Your task to perform on an android device: change the upload size in google photos Image 0: 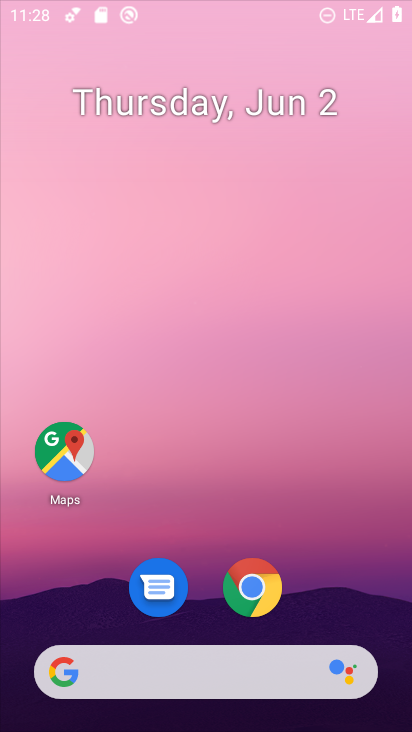
Step 0: drag from (380, 596) to (304, 236)
Your task to perform on an android device: change the upload size in google photos Image 1: 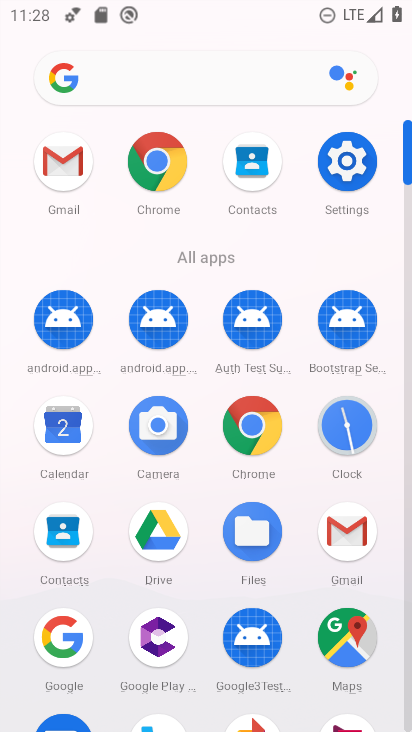
Step 1: click (407, 720)
Your task to perform on an android device: change the upload size in google photos Image 2: 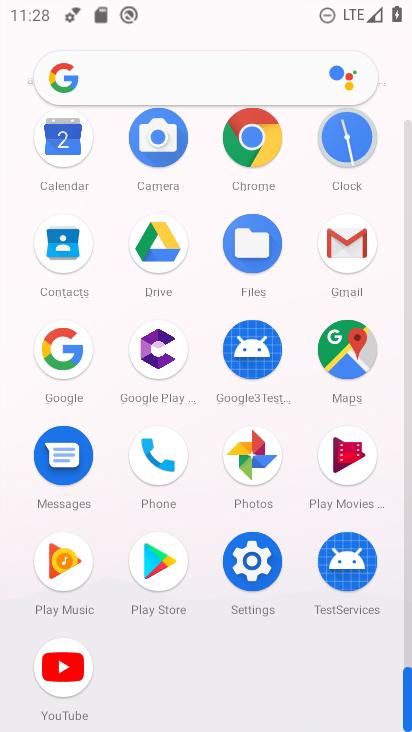
Step 2: click (254, 464)
Your task to perform on an android device: change the upload size in google photos Image 3: 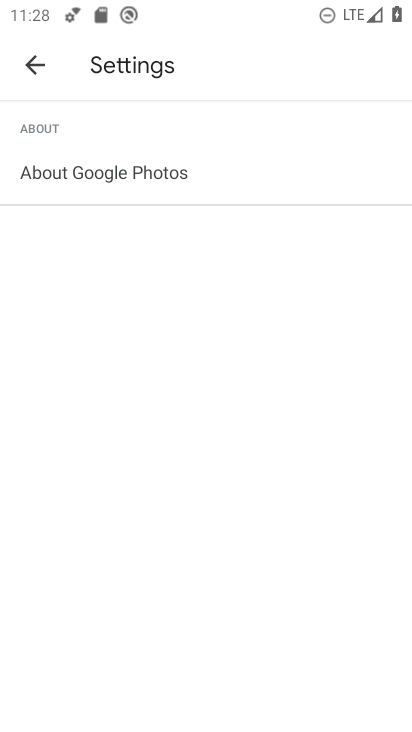
Step 3: click (30, 66)
Your task to perform on an android device: change the upload size in google photos Image 4: 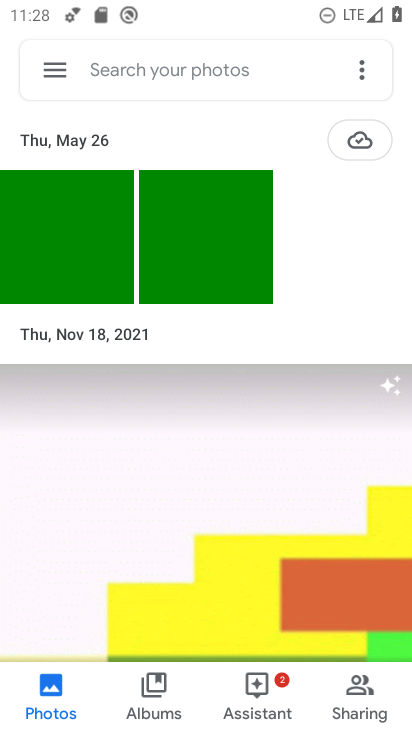
Step 4: click (56, 67)
Your task to perform on an android device: change the upload size in google photos Image 5: 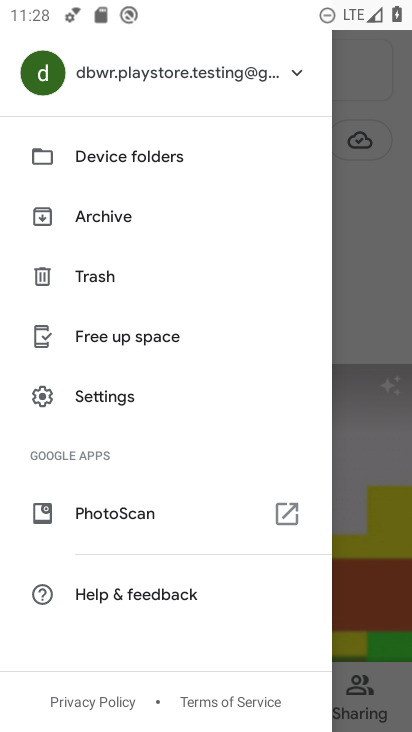
Step 5: click (143, 403)
Your task to perform on an android device: change the upload size in google photos Image 6: 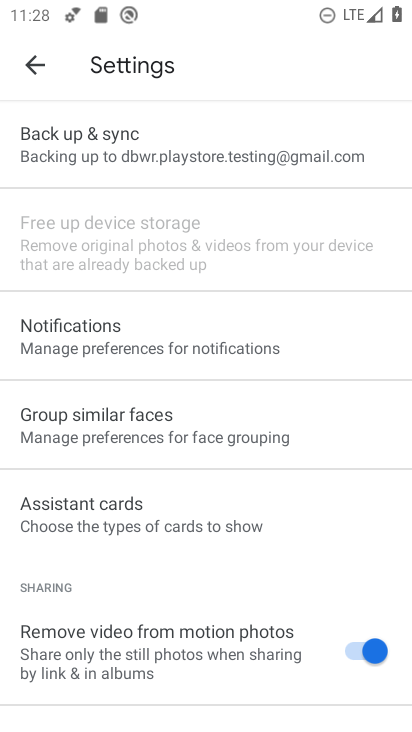
Step 6: click (174, 131)
Your task to perform on an android device: change the upload size in google photos Image 7: 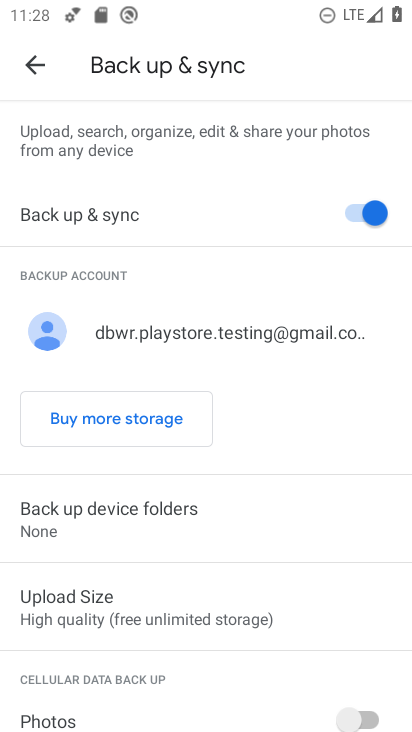
Step 7: drag from (168, 577) to (172, 250)
Your task to perform on an android device: change the upload size in google photos Image 8: 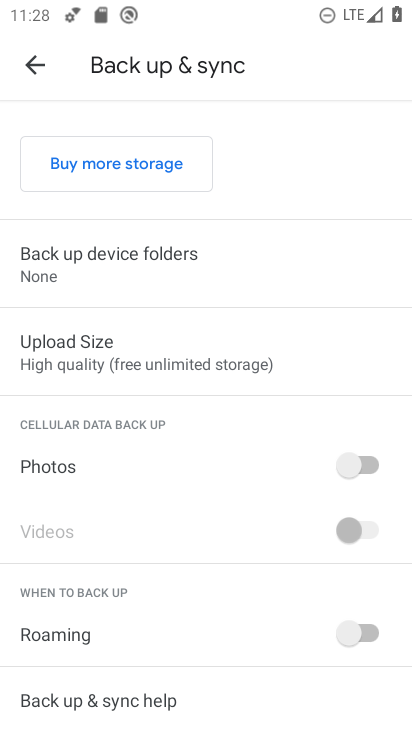
Step 8: click (180, 392)
Your task to perform on an android device: change the upload size in google photos Image 9: 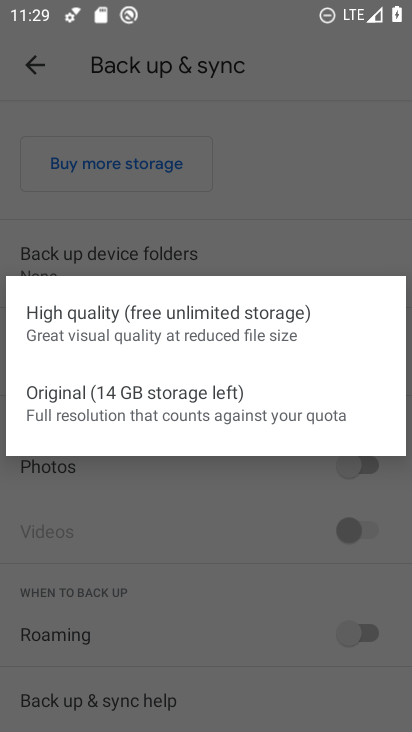
Step 9: click (178, 393)
Your task to perform on an android device: change the upload size in google photos Image 10: 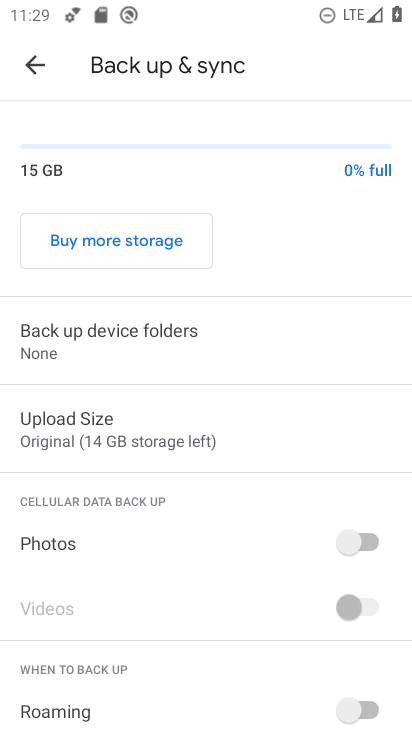
Step 10: task complete